Your task to perform on an android device: Show me productivity apps on the Play Store Image 0: 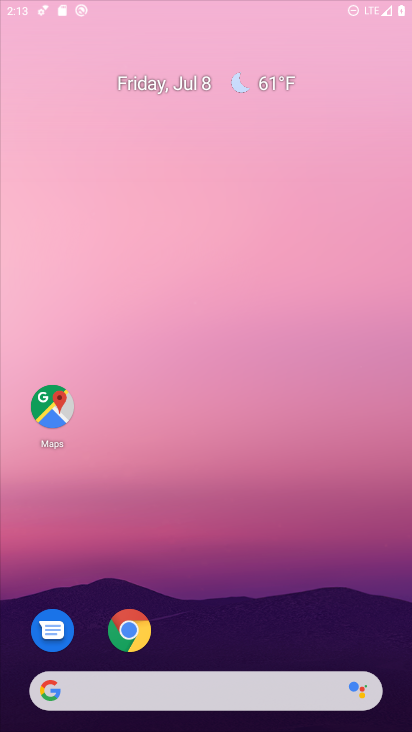
Step 0: drag from (402, 645) to (258, 1)
Your task to perform on an android device: Show me productivity apps on the Play Store Image 1: 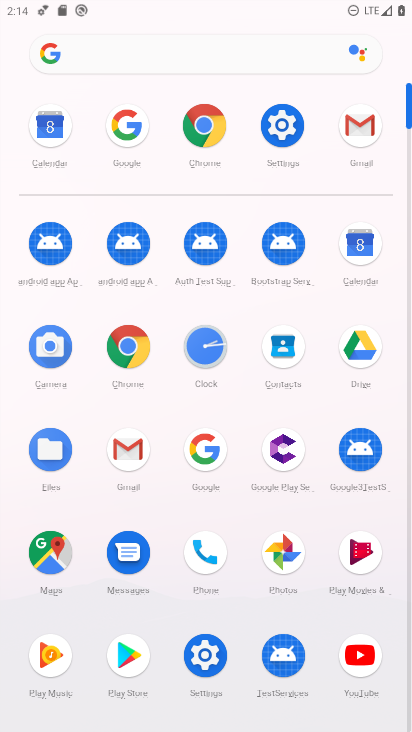
Step 1: click (115, 645)
Your task to perform on an android device: Show me productivity apps on the Play Store Image 2: 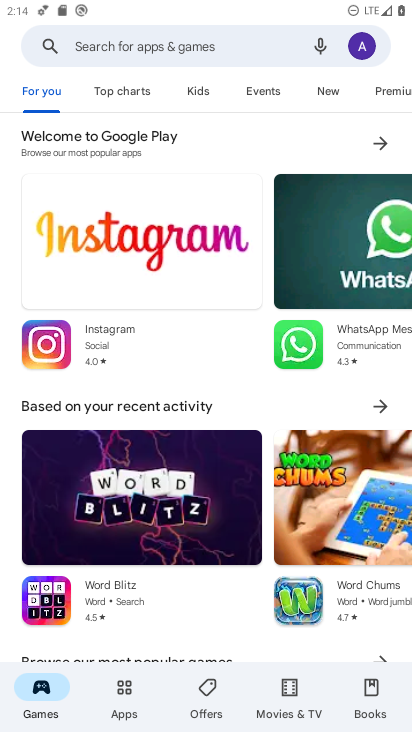
Step 2: task complete